Your task to perform on an android device: star an email in the gmail app Image 0: 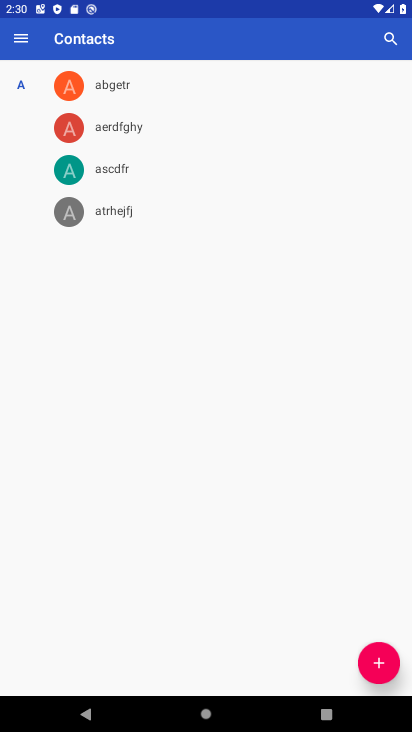
Step 0: press home button
Your task to perform on an android device: star an email in the gmail app Image 1: 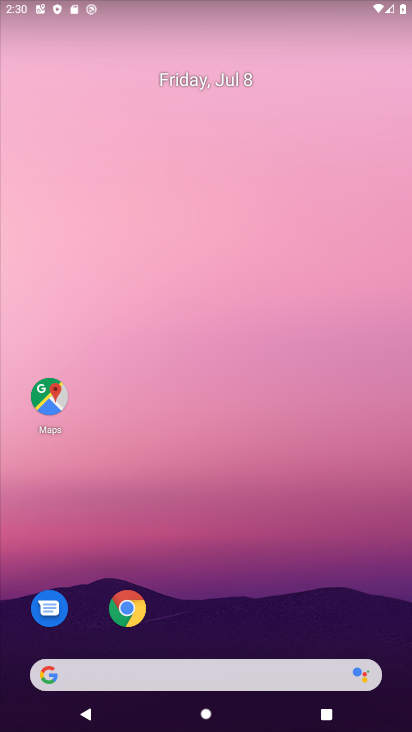
Step 1: drag from (113, 684) to (179, 139)
Your task to perform on an android device: star an email in the gmail app Image 2: 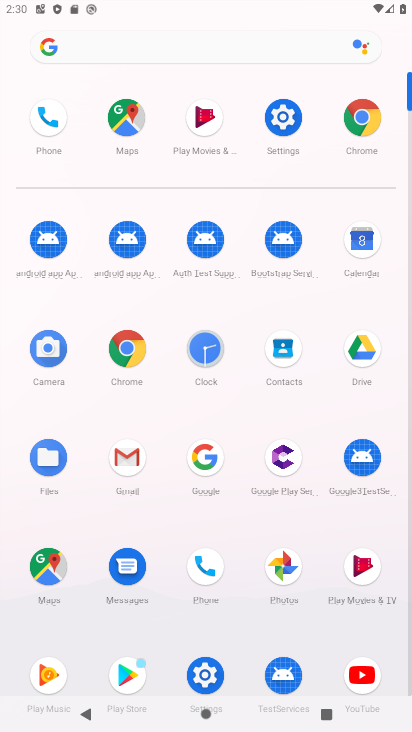
Step 2: click (128, 465)
Your task to perform on an android device: star an email in the gmail app Image 3: 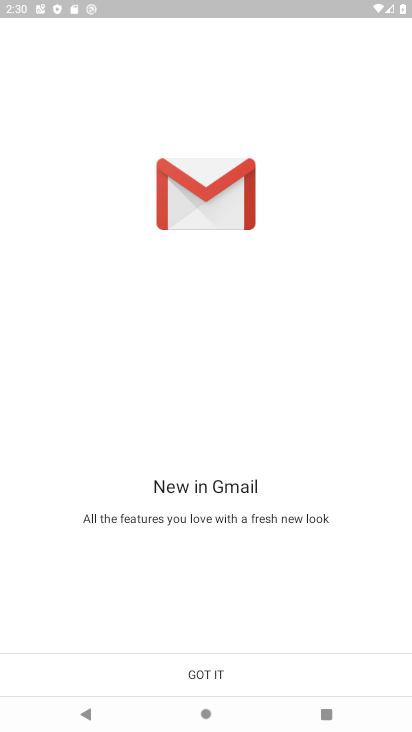
Step 3: click (207, 675)
Your task to perform on an android device: star an email in the gmail app Image 4: 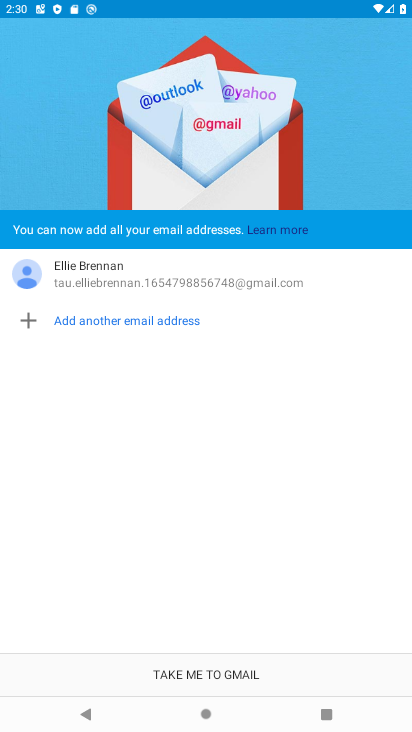
Step 4: click (207, 675)
Your task to perform on an android device: star an email in the gmail app Image 5: 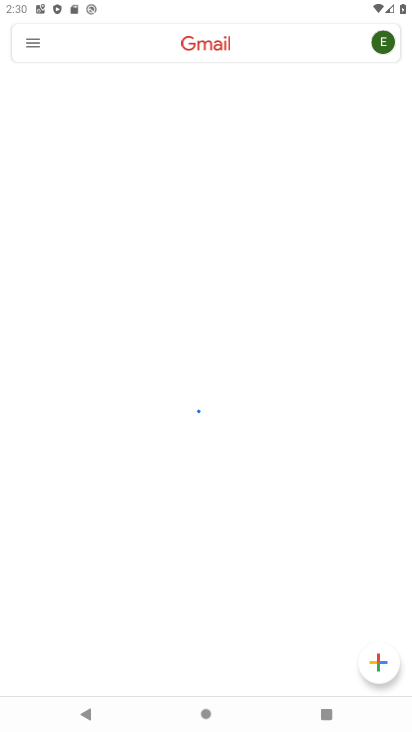
Step 5: click (33, 34)
Your task to perform on an android device: star an email in the gmail app Image 6: 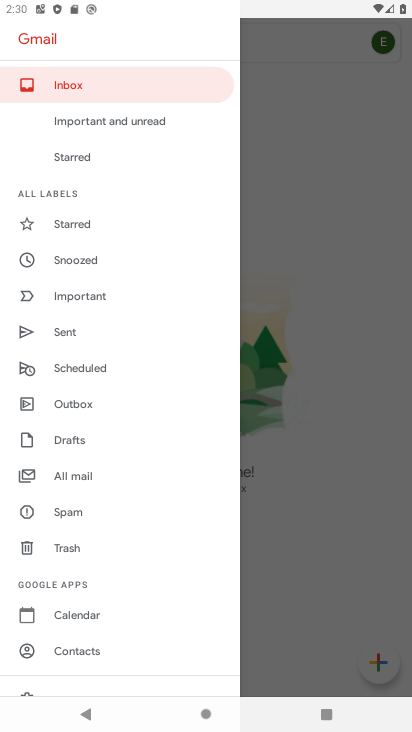
Step 6: click (79, 220)
Your task to perform on an android device: star an email in the gmail app Image 7: 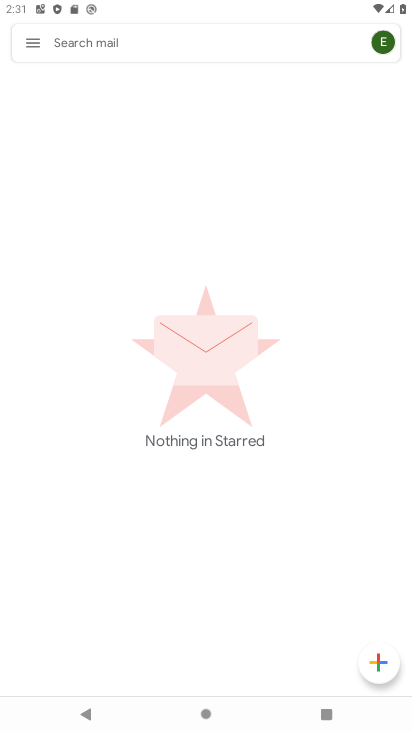
Step 7: task complete